Your task to perform on an android device: Open network settings Image 0: 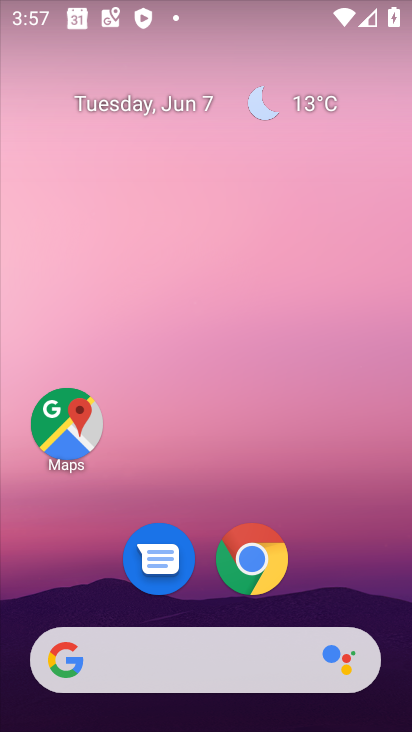
Step 0: drag from (337, 582) to (254, 116)
Your task to perform on an android device: Open network settings Image 1: 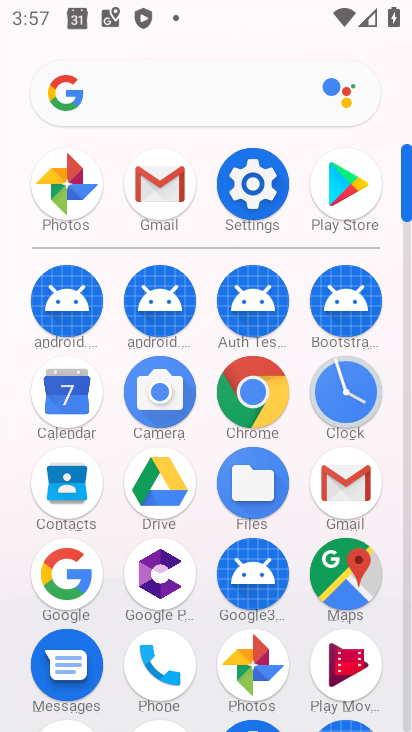
Step 1: click (251, 182)
Your task to perform on an android device: Open network settings Image 2: 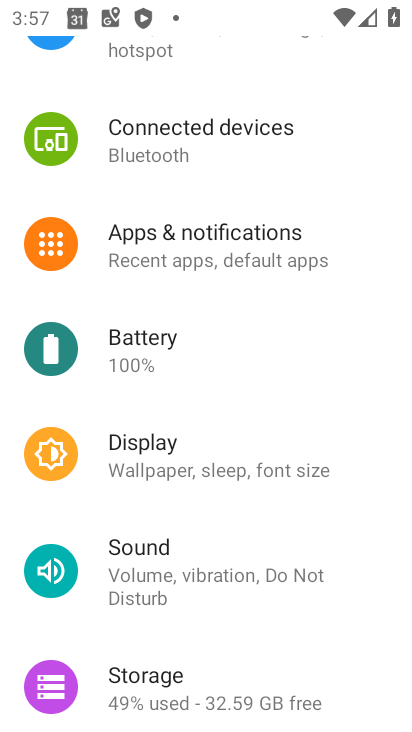
Step 2: drag from (242, 170) to (191, 279)
Your task to perform on an android device: Open network settings Image 3: 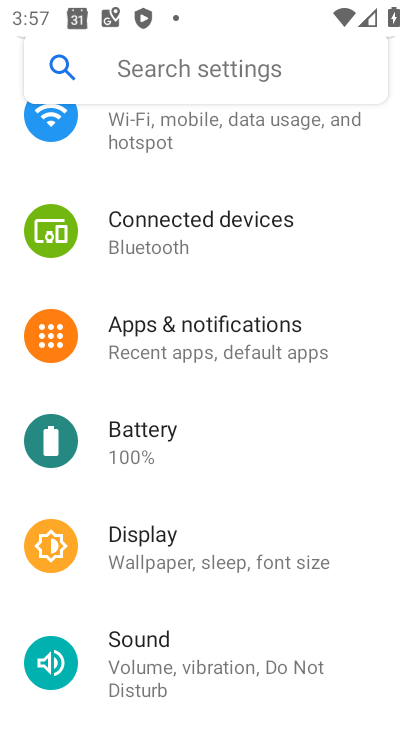
Step 3: drag from (271, 174) to (216, 423)
Your task to perform on an android device: Open network settings Image 4: 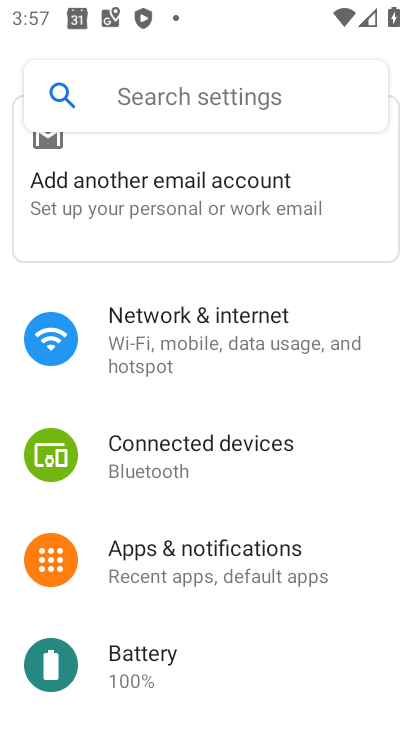
Step 4: click (225, 313)
Your task to perform on an android device: Open network settings Image 5: 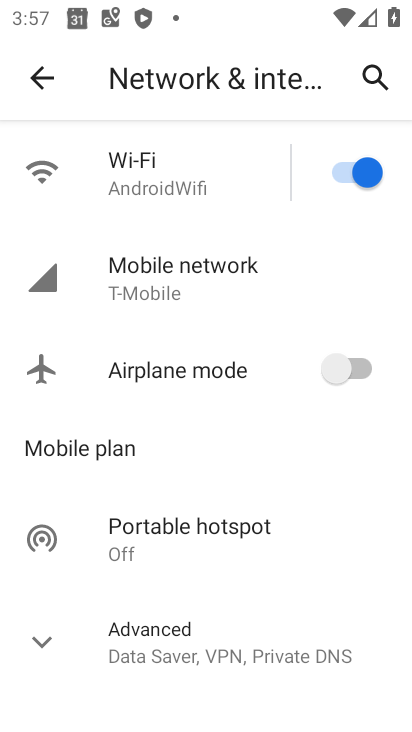
Step 5: click (166, 202)
Your task to perform on an android device: Open network settings Image 6: 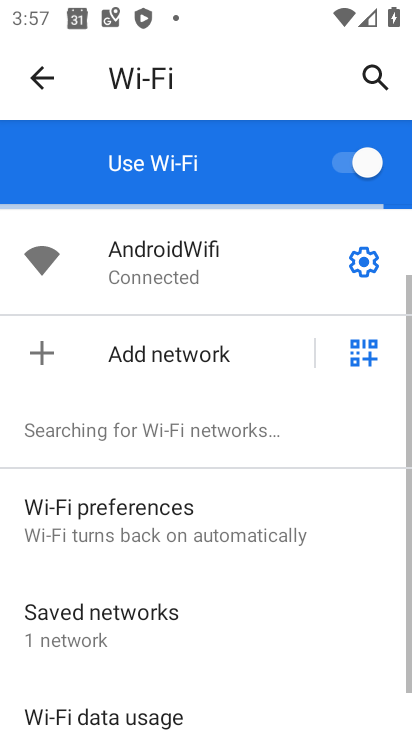
Step 6: task complete